Your task to perform on an android device: Open Reddit Image 0: 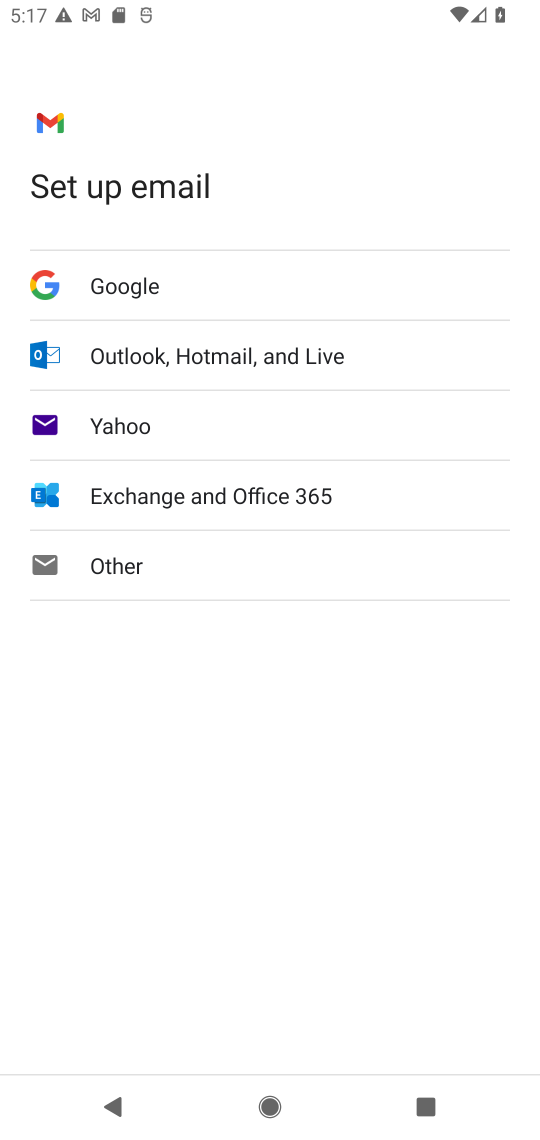
Step 0: press home button
Your task to perform on an android device: Open Reddit Image 1: 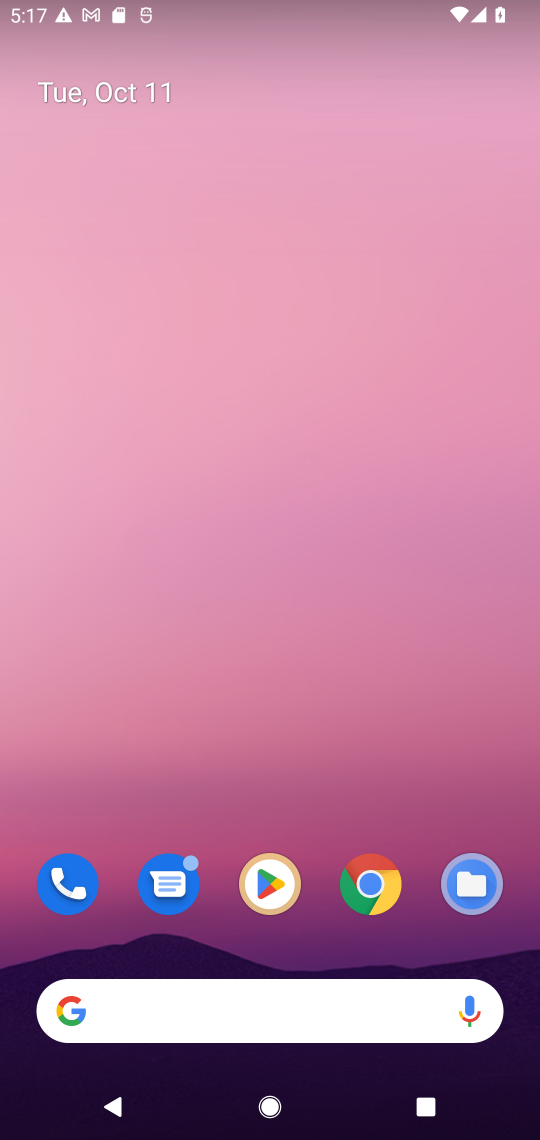
Step 1: click (363, 878)
Your task to perform on an android device: Open Reddit Image 2: 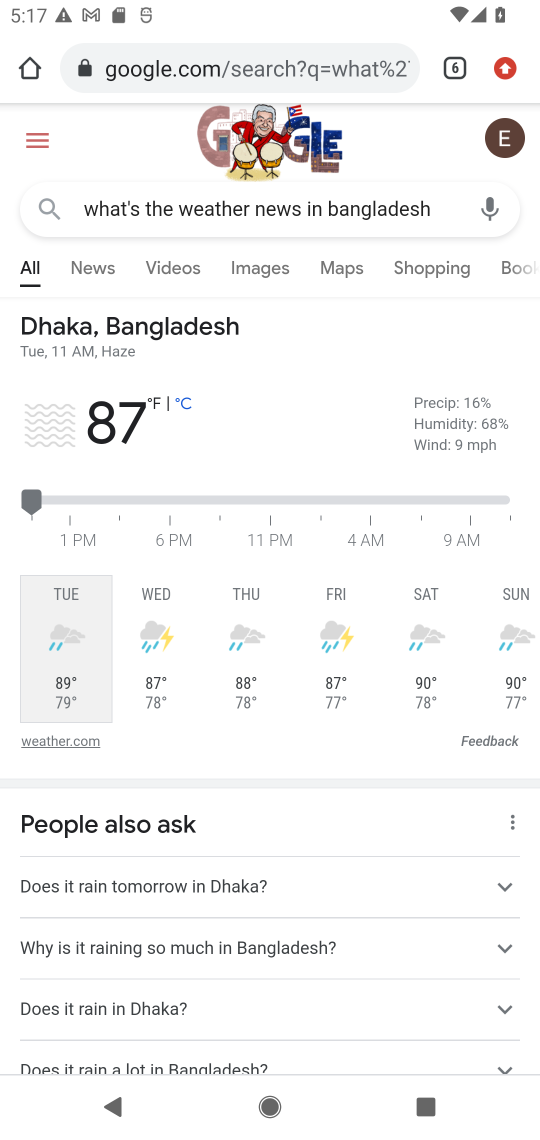
Step 2: click (345, 209)
Your task to perform on an android device: Open Reddit Image 3: 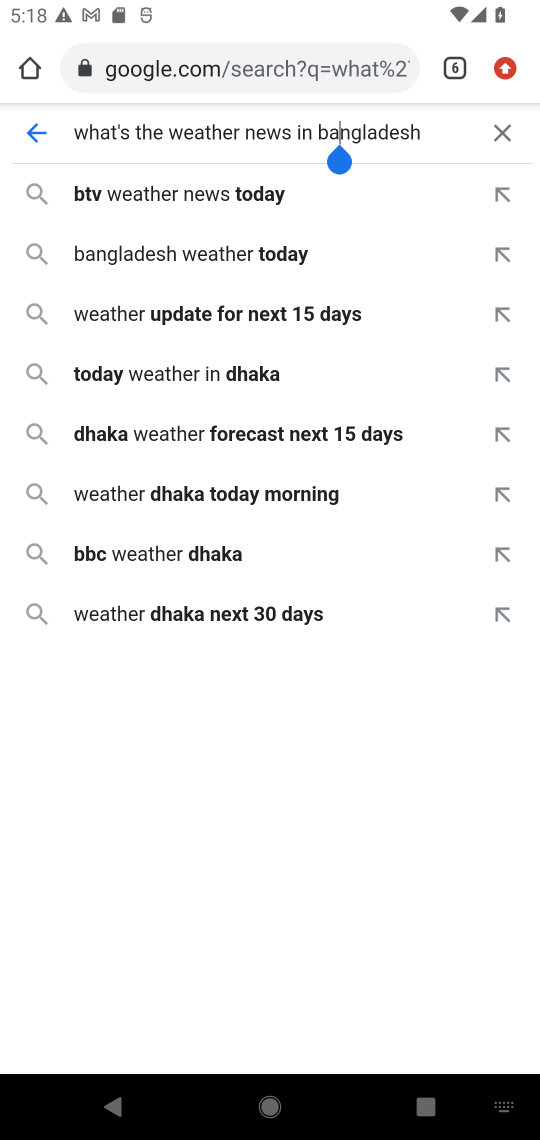
Step 3: click (501, 125)
Your task to perform on an android device: Open Reddit Image 4: 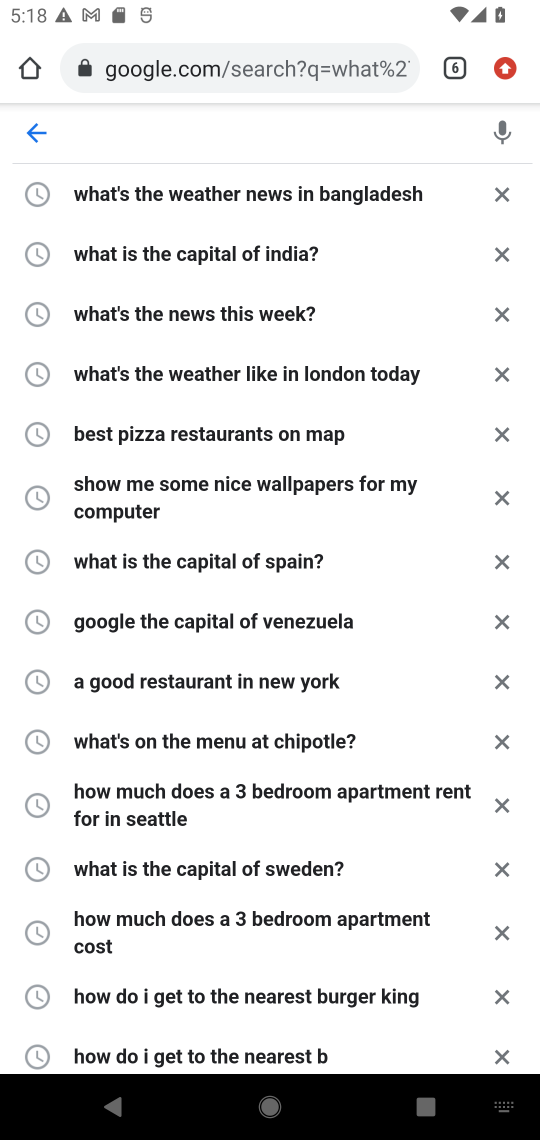
Step 4: type "Reddit"
Your task to perform on an android device: Open Reddit Image 5: 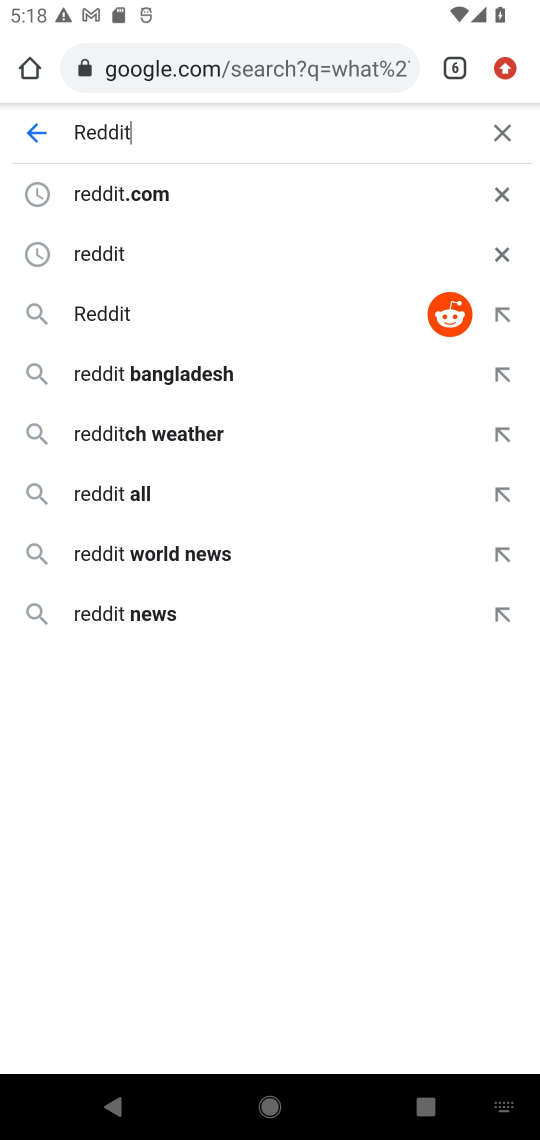
Step 5: click (132, 187)
Your task to perform on an android device: Open Reddit Image 6: 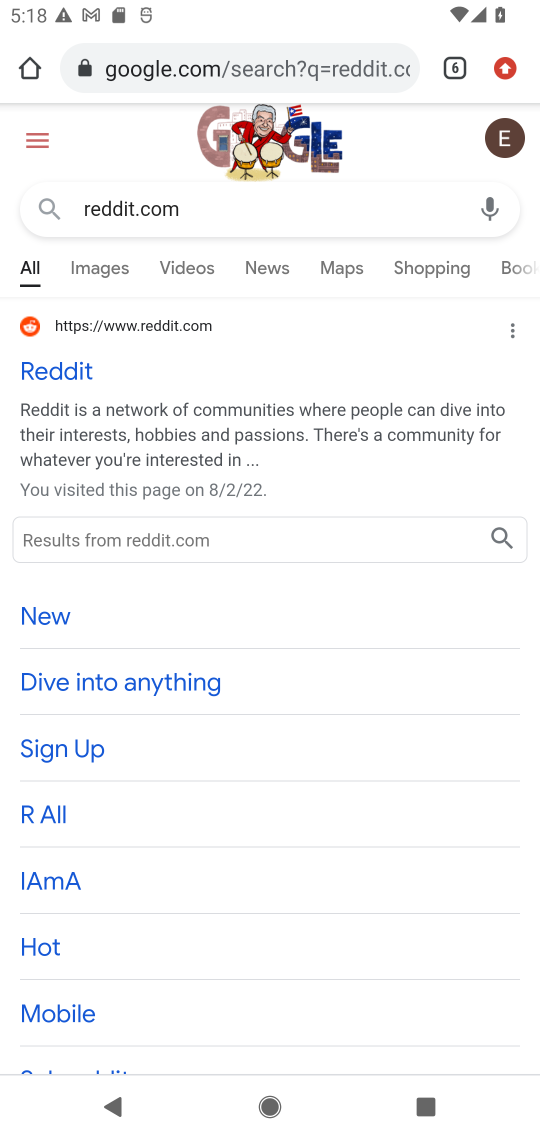
Step 6: click (63, 379)
Your task to perform on an android device: Open Reddit Image 7: 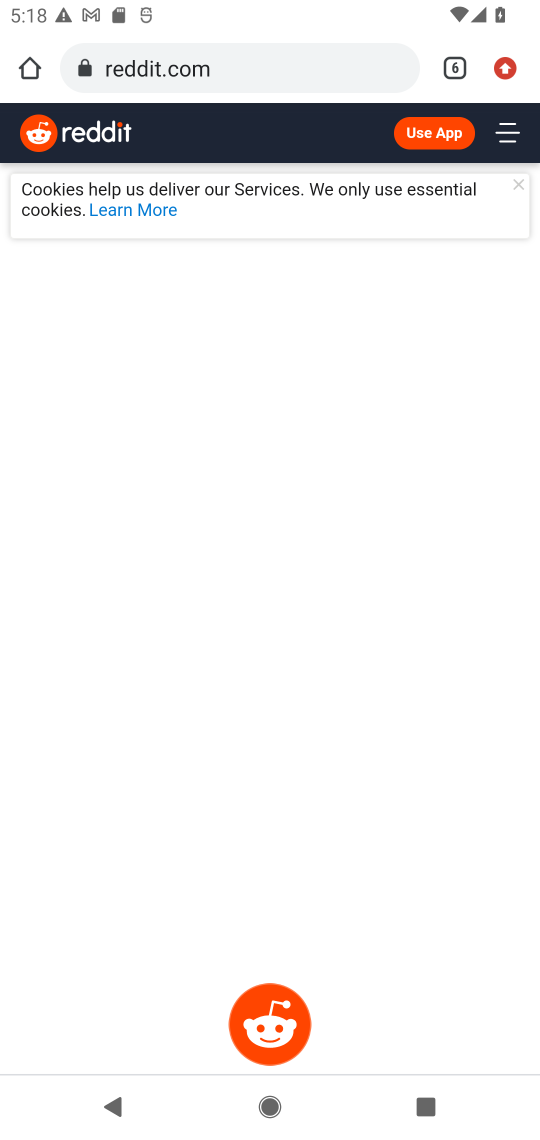
Step 7: task complete